Your task to perform on an android device: Go to privacy settings Image 0: 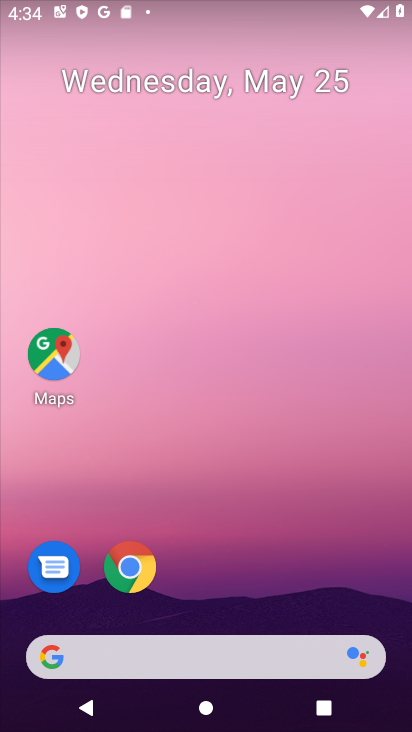
Step 0: drag from (228, 567) to (206, 43)
Your task to perform on an android device: Go to privacy settings Image 1: 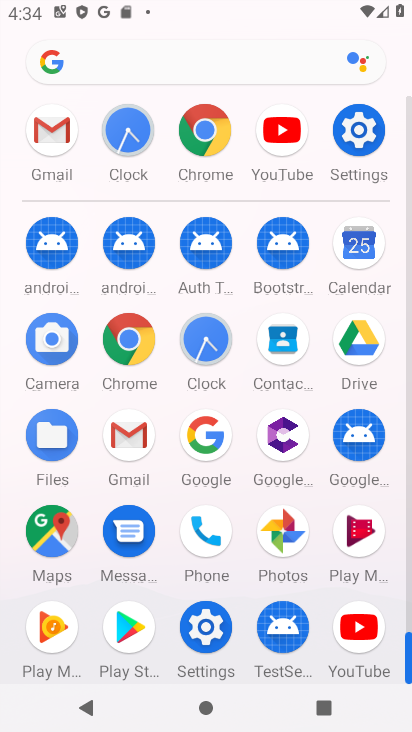
Step 1: drag from (1, 536) to (10, 353)
Your task to perform on an android device: Go to privacy settings Image 2: 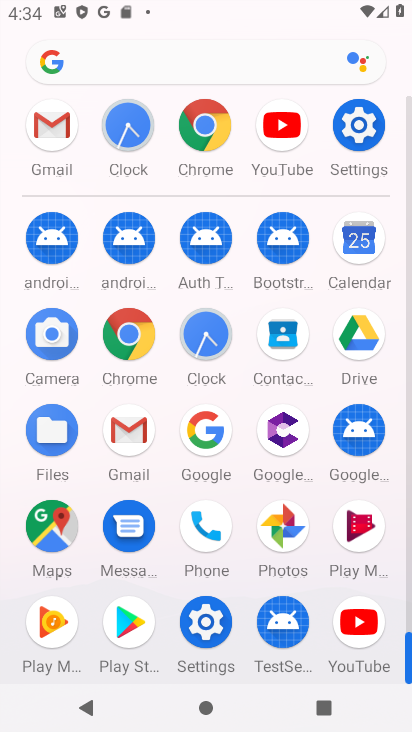
Step 2: click (196, 122)
Your task to perform on an android device: Go to privacy settings Image 3: 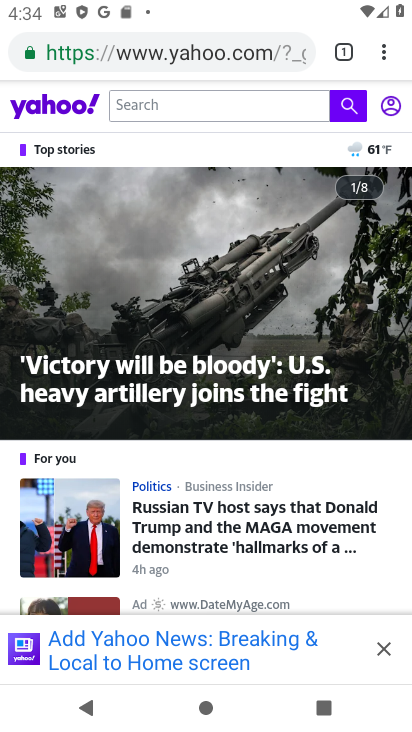
Step 3: drag from (373, 51) to (236, 601)
Your task to perform on an android device: Go to privacy settings Image 4: 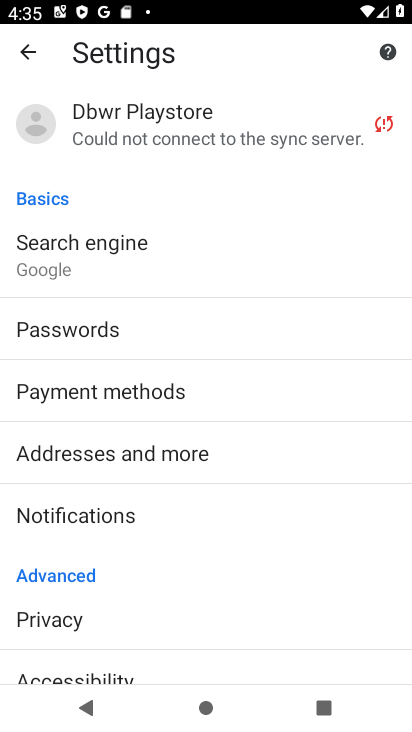
Step 4: drag from (254, 566) to (240, 206)
Your task to perform on an android device: Go to privacy settings Image 5: 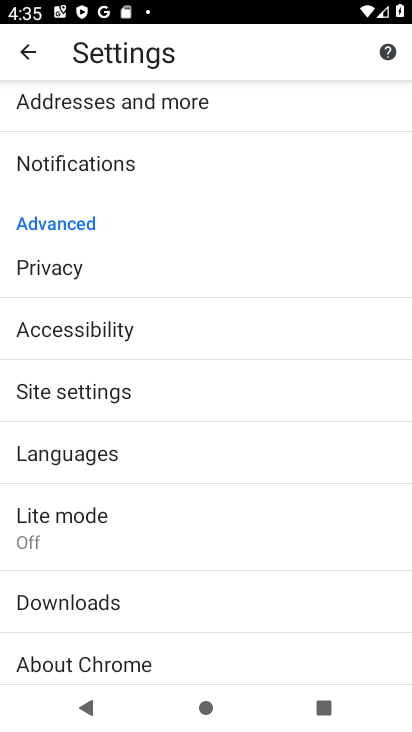
Step 5: click (107, 392)
Your task to perform on an android device: Go to privacy settings Image 6: 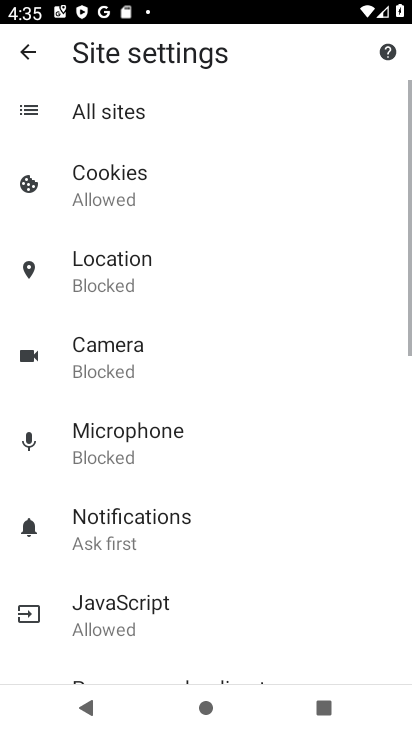
Step 6: drag from (191, 627) to (194, 287)
Your task to perform on an android device: Go to privacy settings Image 7: 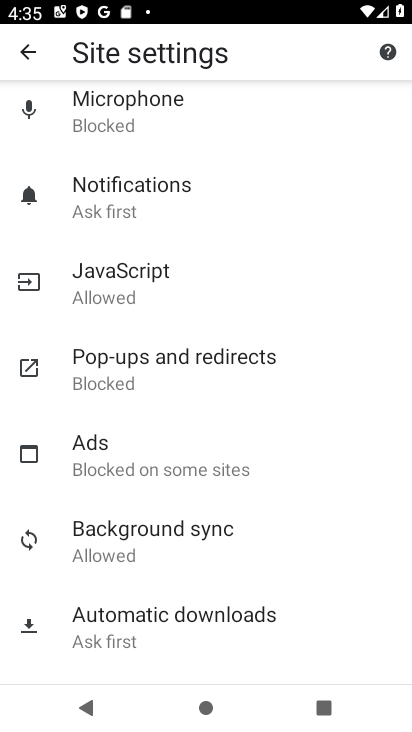
Step 7: drag from (236, 201) to (257, 508)
Your task to perform on an android device: Go to privacy settings Image 8: 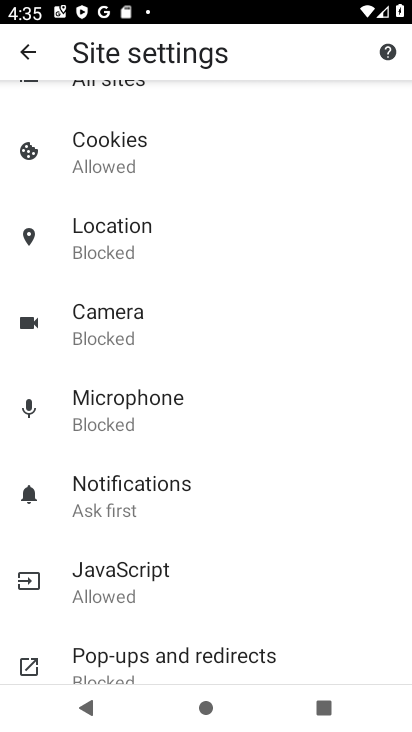
Step 8: drag from (200, 172) to (255, 582)
Your task to perform on an android device: Go to privacy settings Image 9: 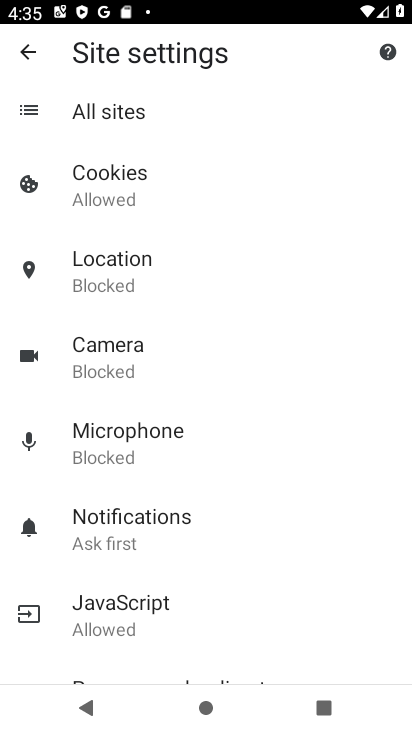
Step 9: drag from (199, 531) to (208, 136)
Your task to perform on an android device: Go to privacy settings Image 10: 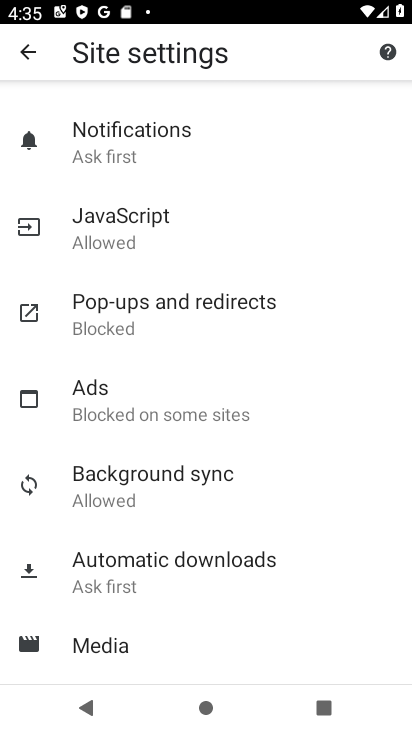
Step 10: drag from (288, 570) to (260, 114)
Your task to perform on an android device: Go to privacy settings Image 11: 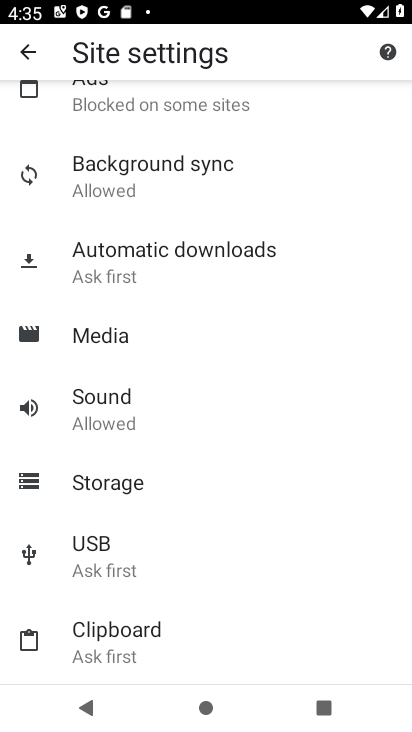
Step 11: click (21, 46)
Your task to perform on an android device: Go to privacy settings Image 12: 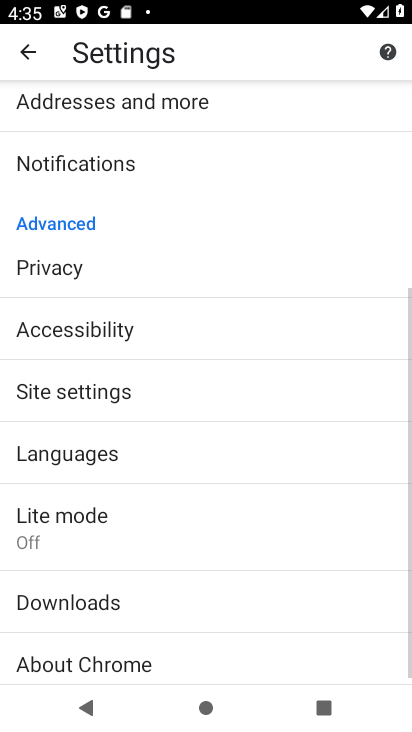
Step 12: click (97, 275)
Your task to perform on an android device: Go to privacy settings Image 13: 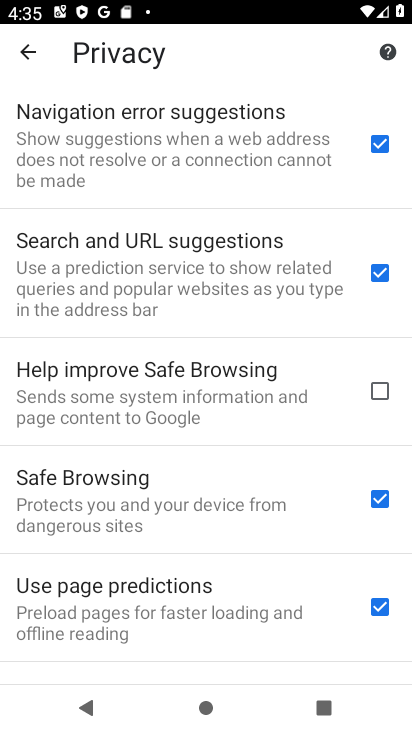
Step 13: task complete